Your task to perform on an android device: change your default location settings in chrome Image 0: 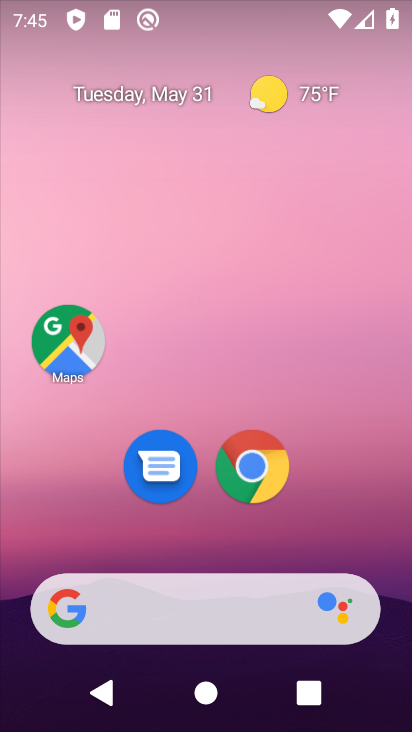
Step 0: drag from (213, 533) to (251, 30)
Your task to perform on an android device: change your default location settings in chrome Image 1: 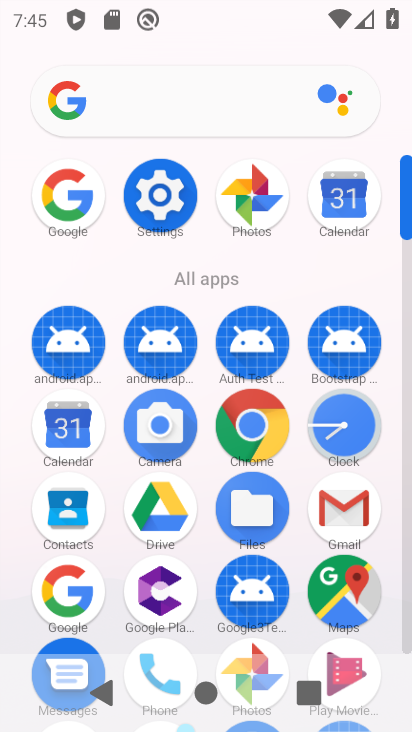
Step 1: click (238, 407)
Your task to perform on an android device: change your default location settings in chrome Image 2: 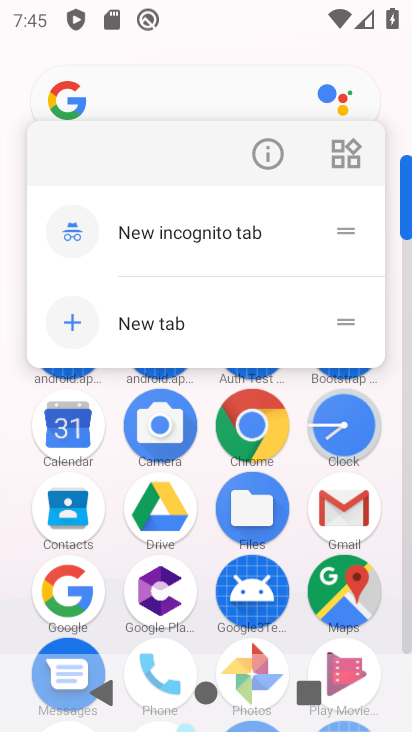
Step 2: click (261, 160)
Your task to perform on an android device: change your default location settings in chrome Image 3: 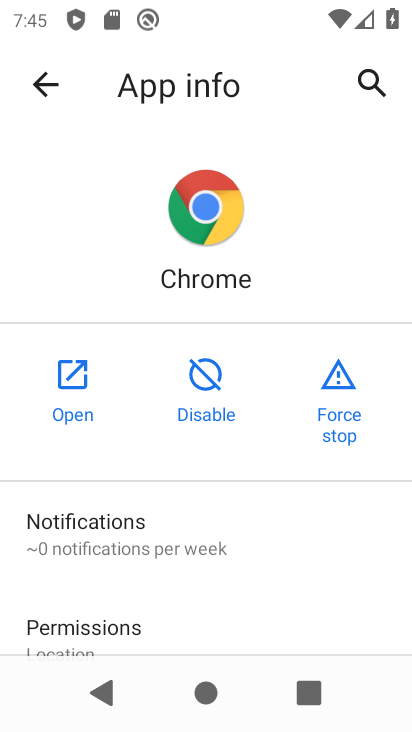
Step 3: click (74, 378)
Your task to perform on an android device: change your default location settings in chrome Image 4: 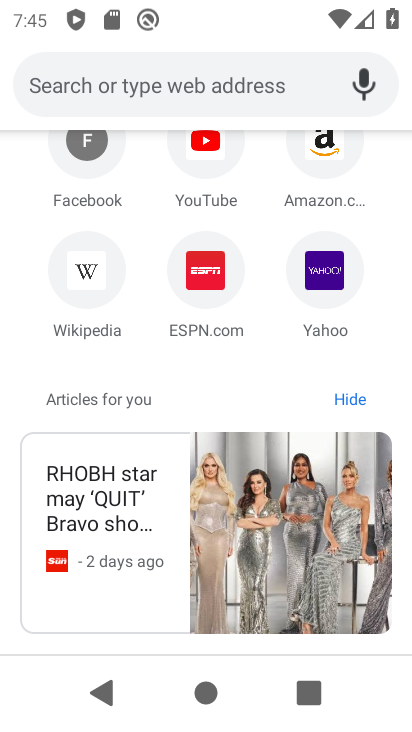
Step 4: drag from (271, 201) to (273, 627)
Your task to perform on an android device: change your default location settings in chrome Image 5: 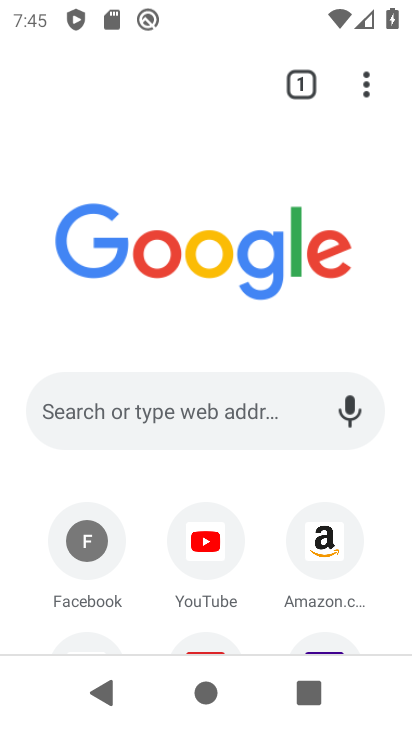
Step 5: drag from (368, 92) to (155, 523)
Your task to perform on an android device: change your default location settings in chrome Image 6: 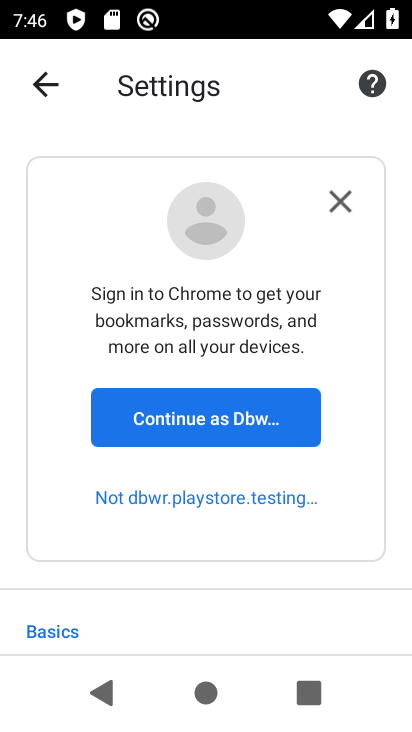
Step 6: drag from (224, 593) to (264, 229)
Your task to perform on an android device: change your default location settings in chrome Image 7: 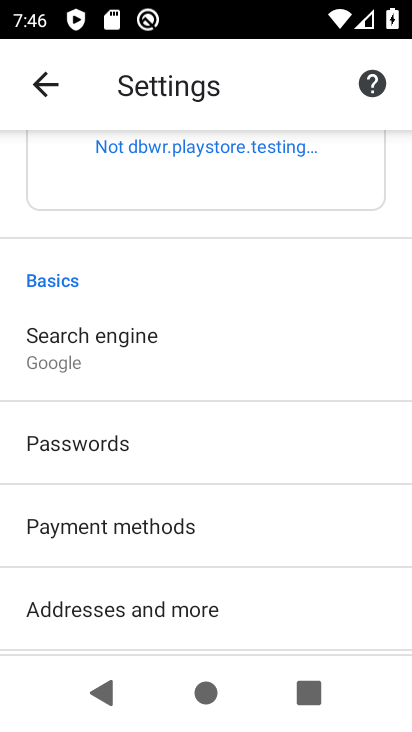
Step 7: drag from (188, 602) to (251, 240)
Your task to perform on an android device: change your default location settings in chrome Image 8: 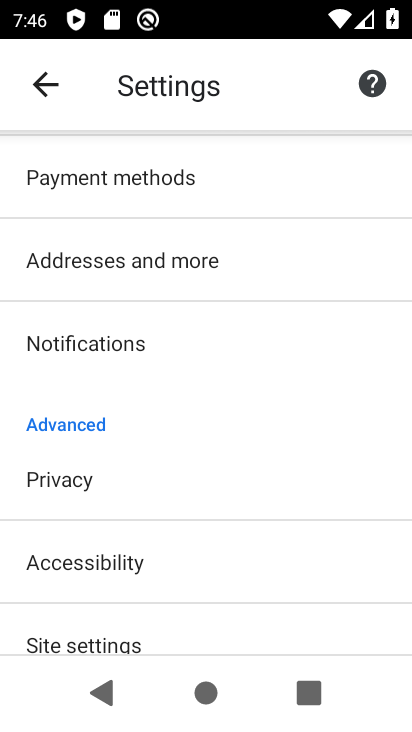
Step 8: click (124, 644)
Your task to perform on an android device: change your default location settings in chrome Image 9: 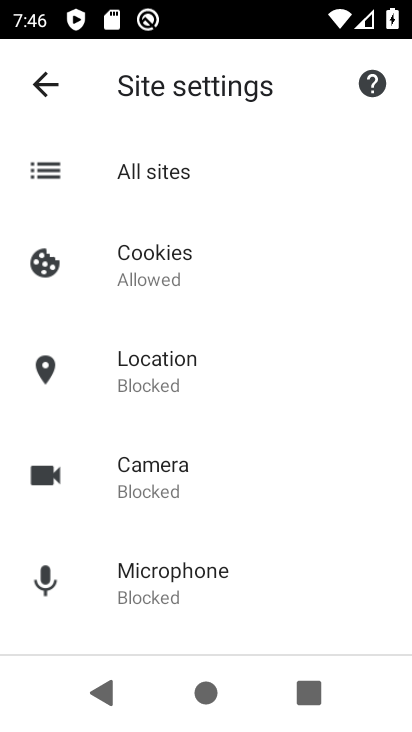
Step 9: click (182, 382)
Your task to perform on an android device: change your default location settings in chrome Image 10: 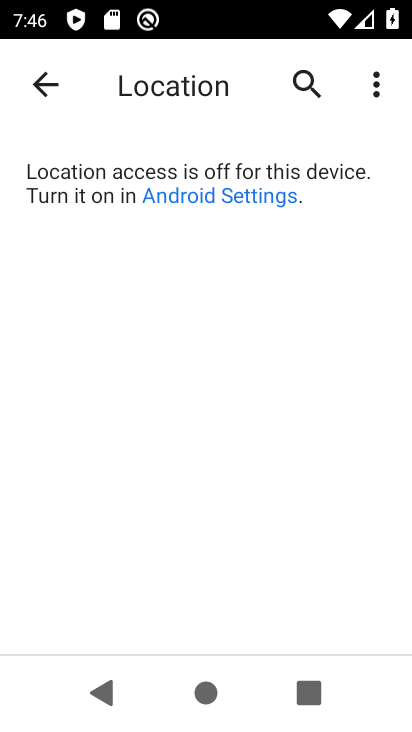
Step 10: task complete